Your task to perform on an android device: turn off smart reply in the gmail app Image 0: 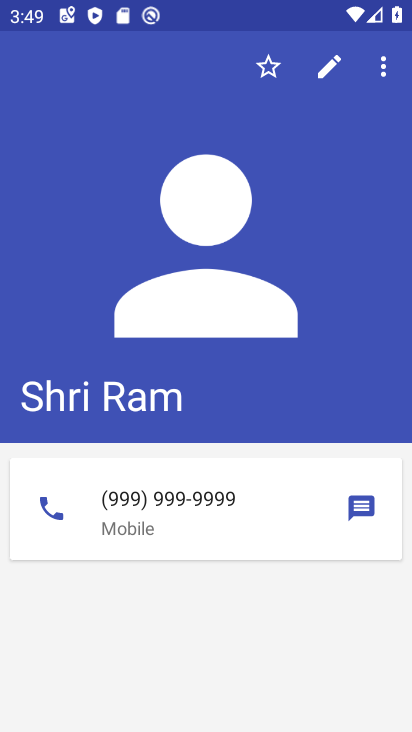
Step 0: press home button
Your task to perform on an android device: turn off smart reply in the gmail app Image 1: 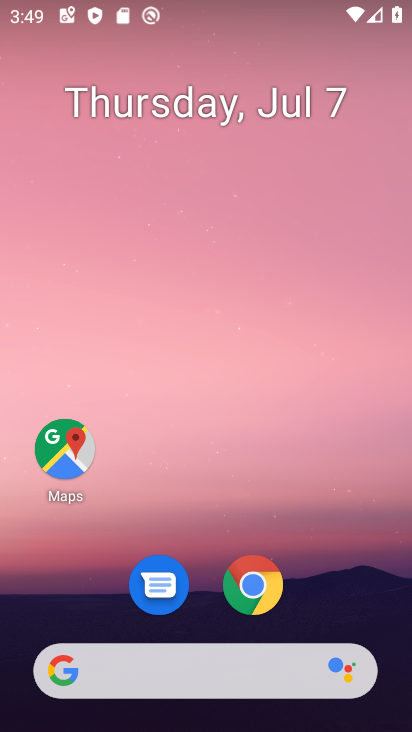
Step 1: drag from (240, 509) to (253, 44)
Your task to perform on an android device: turn off smart reply in the gmail app Image 2: 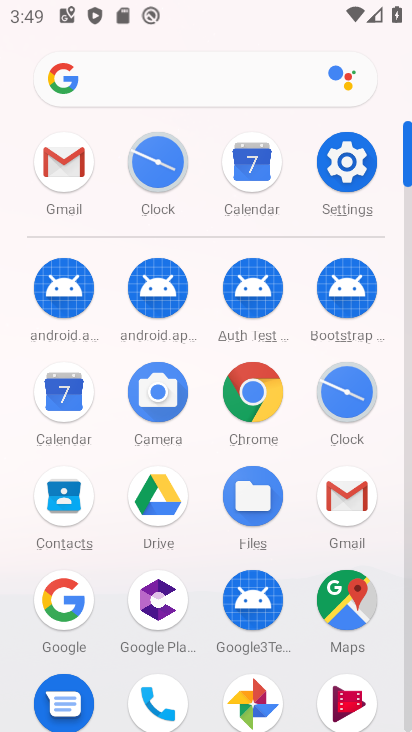
Step 2: click (67, 154)
Your task to perform on an android device: turn off smart reply in the gmail app Image 3: 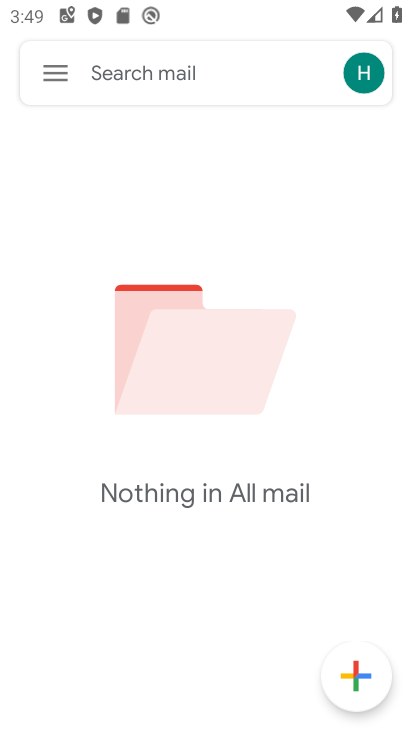
Step 3: click (60, 69)
Your task to perform on an android device: turn off smart reply in the gmail app Image 4: 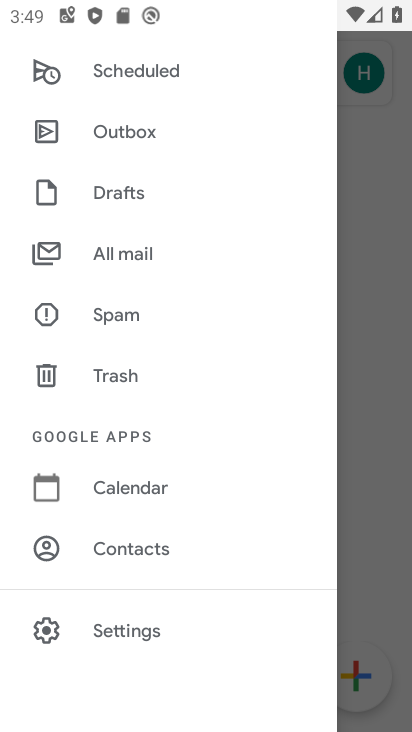
Step 4: click (123, 620)
Your task to perform on an android device: turn off smart reply in the gmail app Image 5: 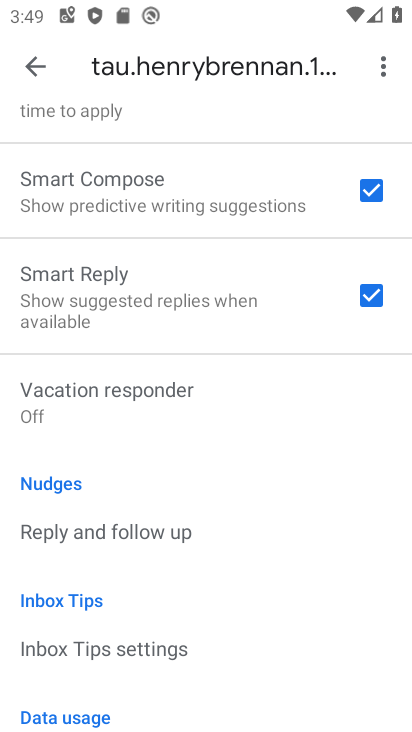
Step 5: click (376, 298)
Your task to perform on an android device: turn off smart reply in the gmail app Image 6: 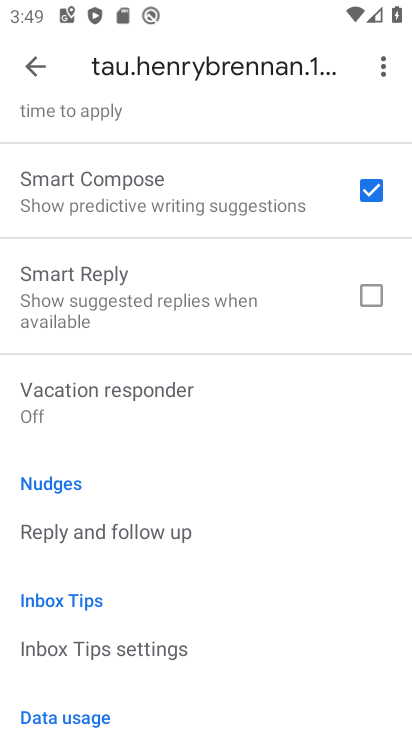
Step 6: task complete